Your task to perform on an android device: Search for Italian restaurants on Maps Image 0: 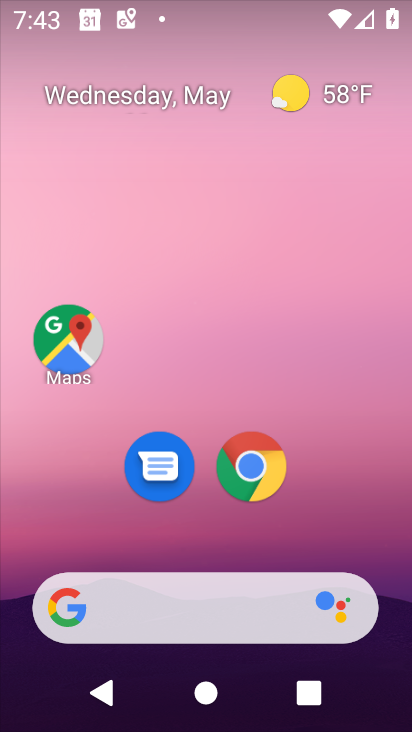
Step 0: press home button
Your task to perform on an android device: Search for Italian restaurants on Maps Image 1: 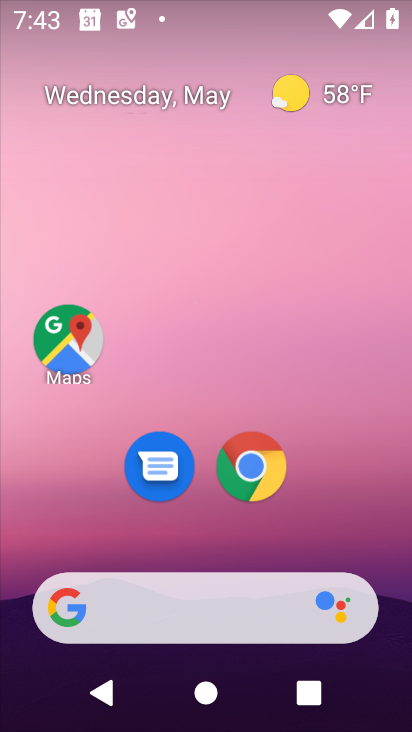
Step 1: click (65, 342)
Your task to perform on an android device: Search for Italian restaurants on Maps Image 2: 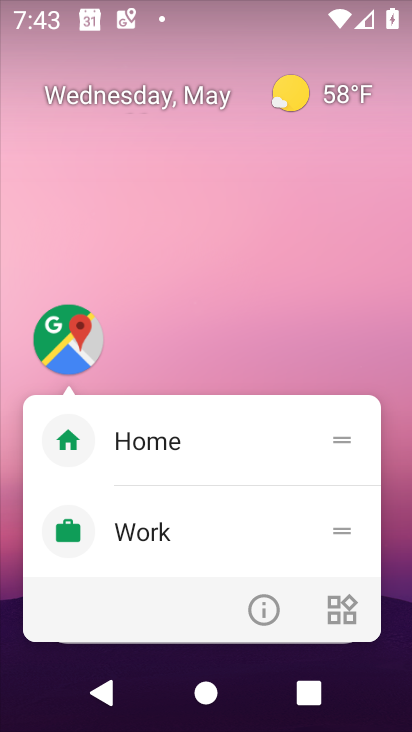
Step 2: click (174, 271)
Your task to perform on an android device: Search for Italian restaurants on Maps Image 3: 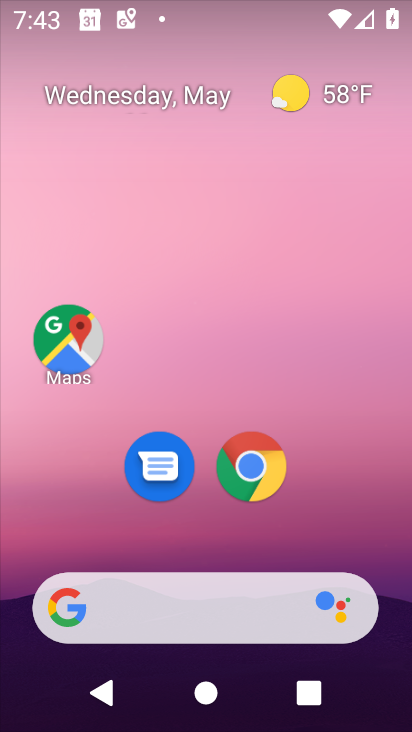
Step 3: click (70, 333)
Your task to perform on an android device: Search for Italian restaurants on Maps Image 4: 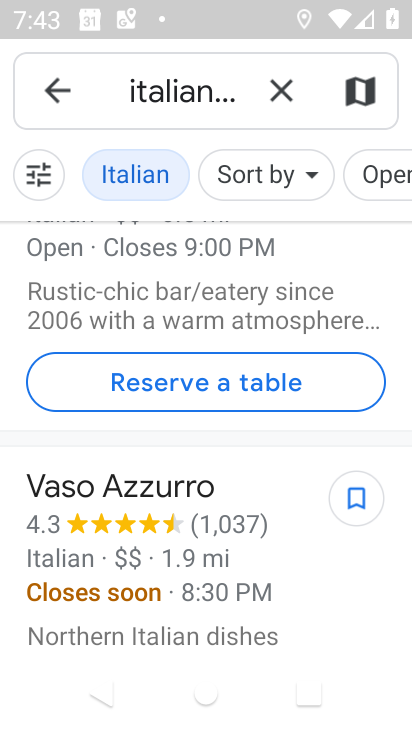
Step 4: drag from (193, 263) to (179, 543)
Your task to perform on an android device: Search for Italian restaurants on Maps Image 5: 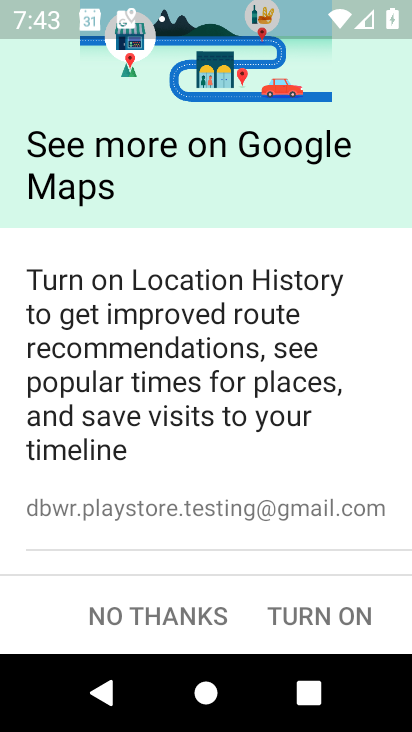
Step 5: click (340, 617)
Your task to perform on an android device: Search for Italian restaurants on Maps Image 6: 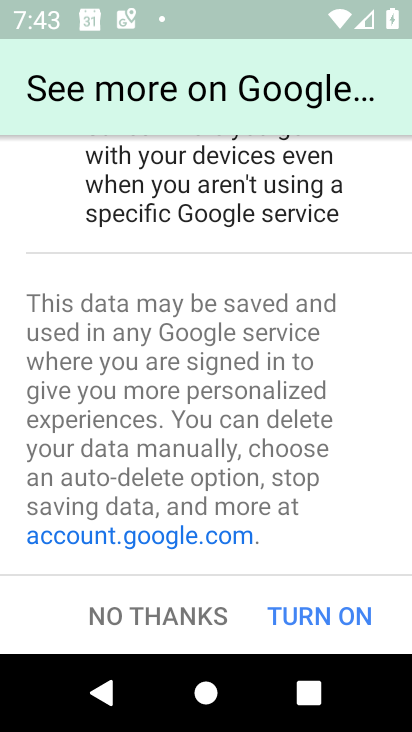
Step 6: click (320, 618)
Your task to perform on an android device: Search for Italian restaurants on Maps Image 7: 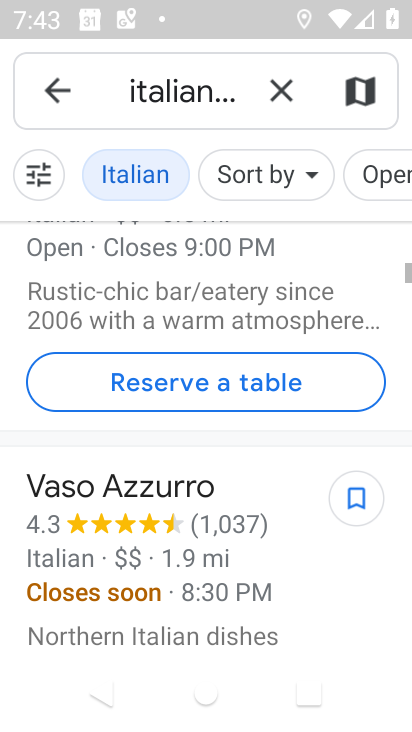
Step 7: click (324, 614)
Your task to perform on an android device: Search for Italian restaurants on Maps Image 8: 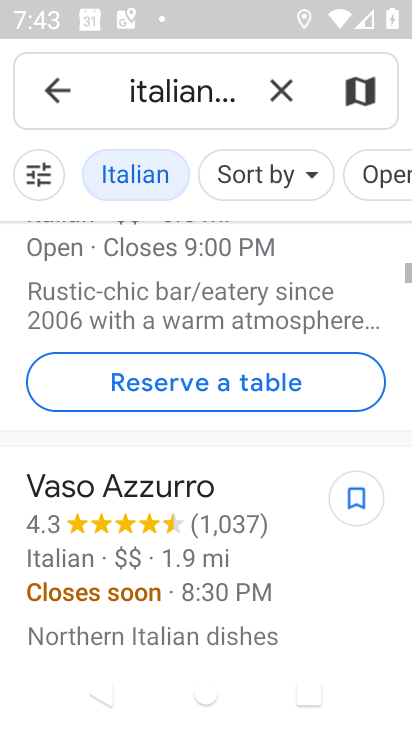
Step 8: drag from (276, 594) to (325, 181)
Your task to perform on an android device: Search for Italian restaurants on Maps Image 9: 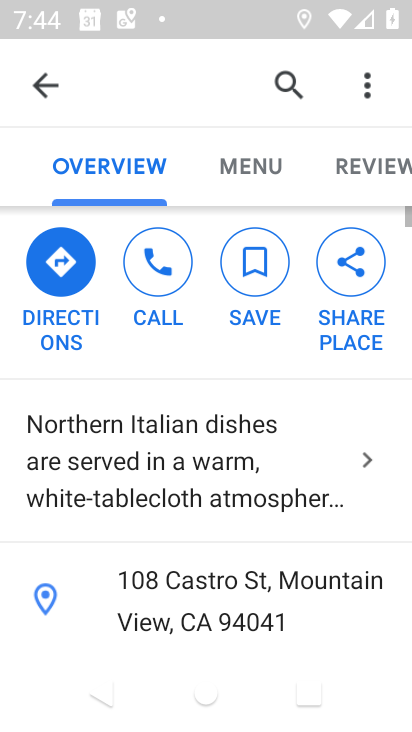
Step 9: click (44, 88)
Your task to perform on an android device: Search for Italian restaurants on Maps Image 10: 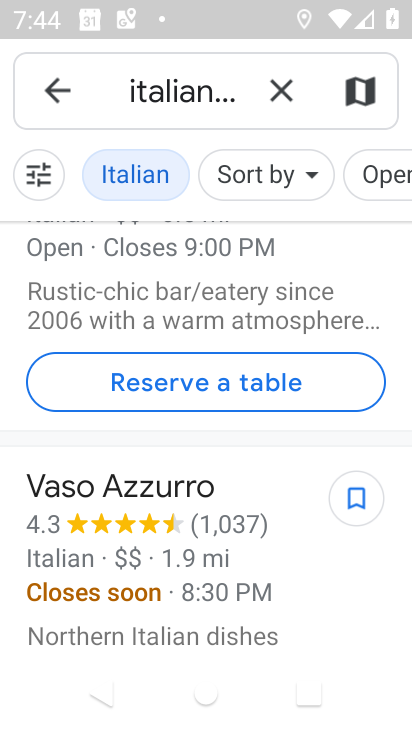
Step 10: task complete